Your task to perform on an android device: Open Google Image 0: 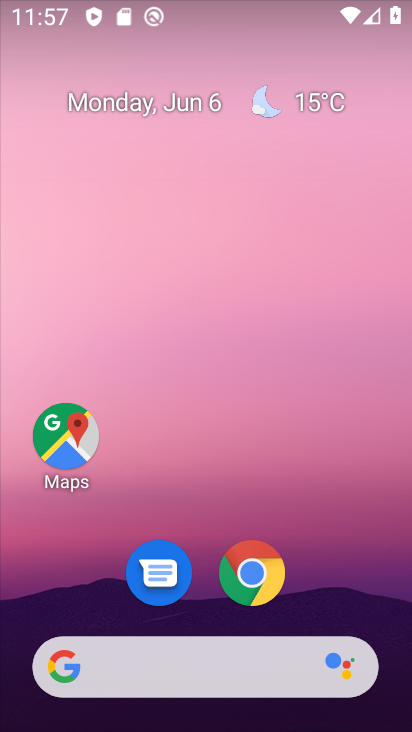
Step 0: drag from (339, 588) to (326, 145)
Your task to perform on an android device: Open Google Image 1: 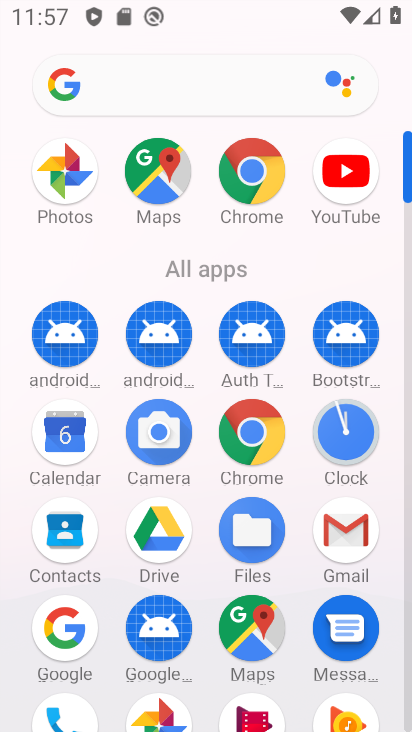
Step 1: click (73, 621)
Your task to perform on an android device: Open Google Image 2: 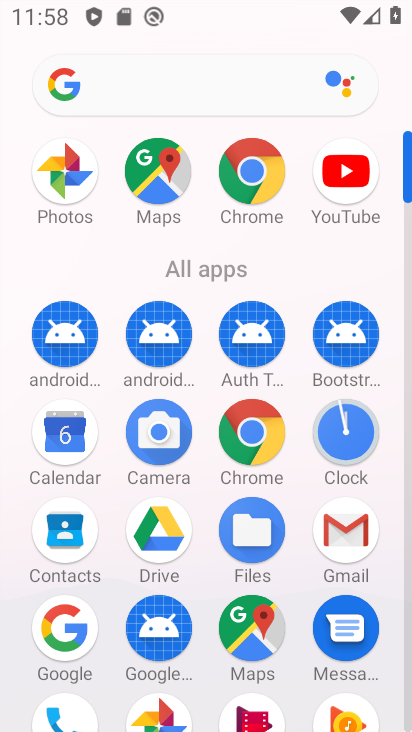
Step 2: task complete